Your task to perform on an android device: delete the emails in spam in the gmail app Image 0: 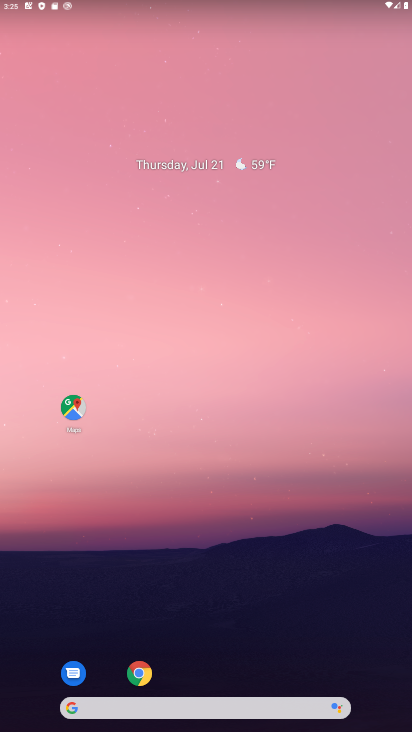
Step 0: drag from (313, 640) to (235, 3)
Your task to perform on an android device: delete the emails in spam in the gmail app Image 1: 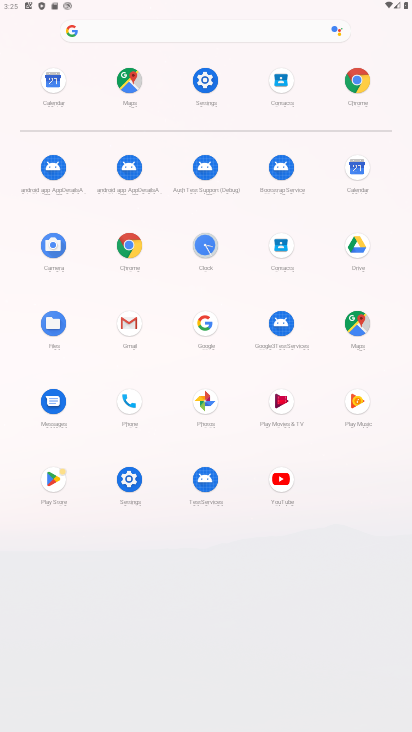
Step 1: click (131, 326)
Your task to perform on an android device: delete the emails in spam in the gmail app Image 2: 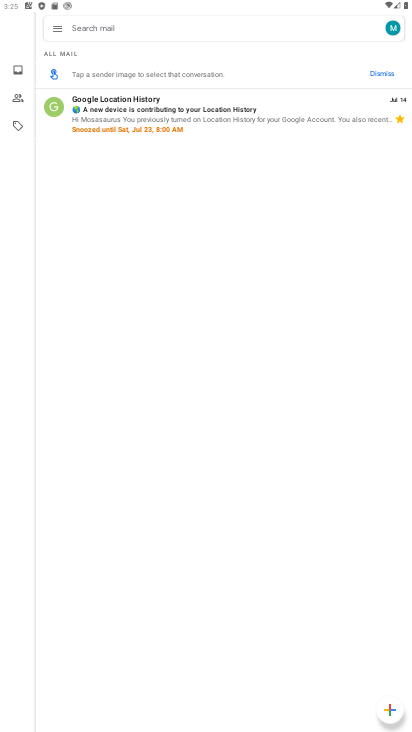
Step 2: click (56, 32)
Your task to perform on an android device: delete the emails in spam in the gmail app Image 3: 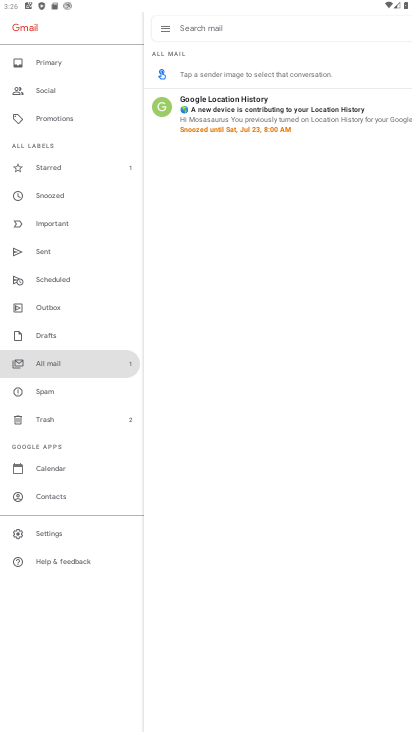
Step 3: click (62, 385)
Your task to perform on an android device: delete the emails in spam in the gmail app Image 4: 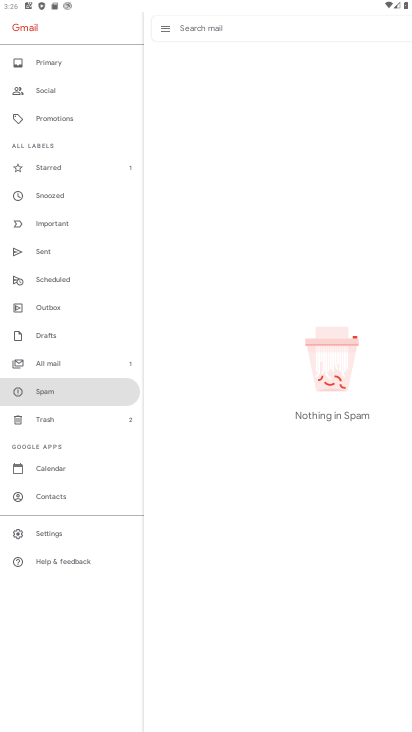
Step 4: task complete